Your task to perform on an android device: turn on the 12-hour format for clock Image 0: 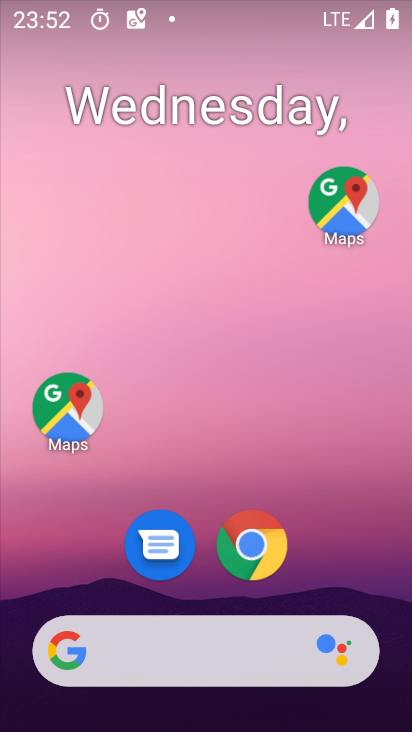
Step 0: drag from (326, 582) to (296, 59)
Your task to perform on an android device: turn on the 12-hour format for clock Image 1: 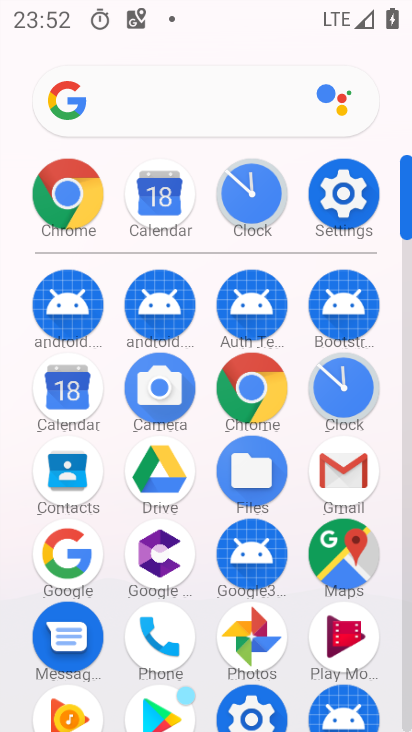
Step 1: click (319, 384)
Your task to perform on an android device: turn on the 12-hour format for clock Image 2: 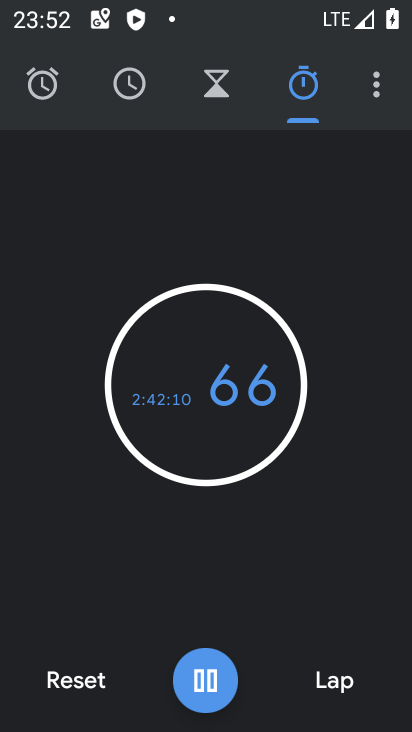
Step 2: click (390, 91)
Your task to perform on an android device: turn on the 12-hour format for clock Image 3: 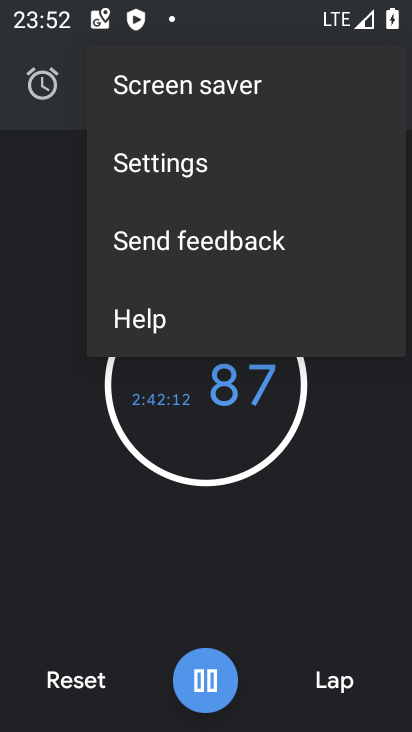
Step 3: click (187, 167)
Your task to perform on an android device: turn on the 12-hour format for clock Image 4: 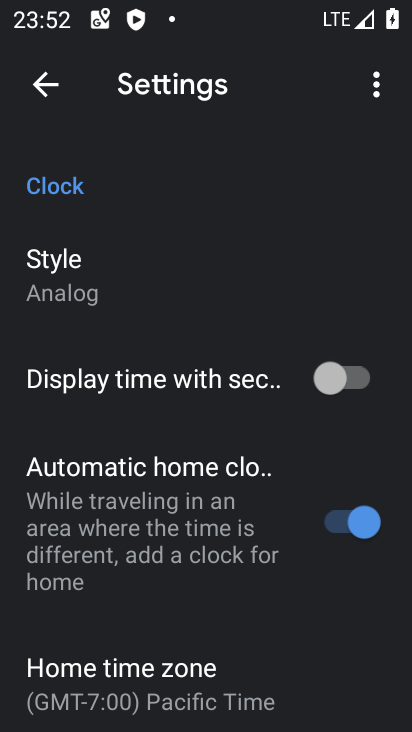
Step 4: drag from (306, 666) to (285, 310)
Your task to perform on an android device: turn on the 12-hour format for clock Image 5: 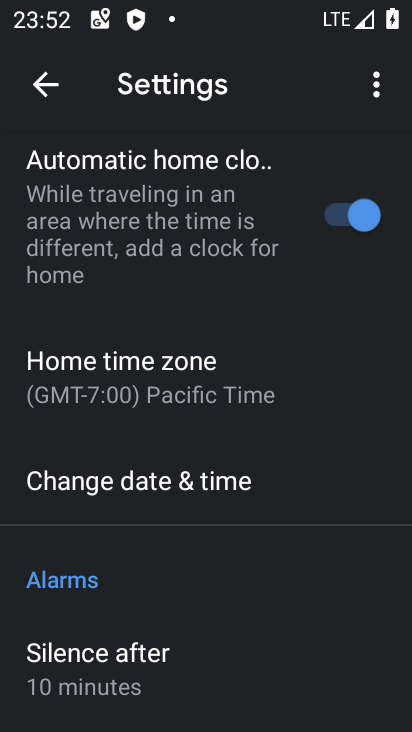
Step 5: drag from (332, 644) to (311, 435)
Your task to perform on an android device: turn on the 12-hour format for clock Image 6: 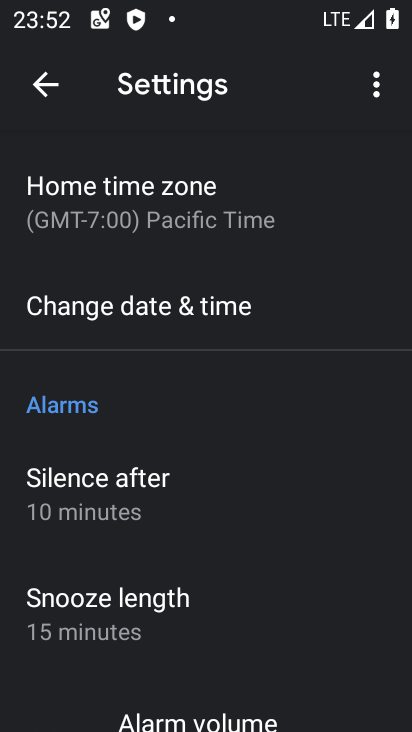
Step 6: click (230, 305)
Your task to perform on an android device: turn on the 12-hour format for clock Image 7: 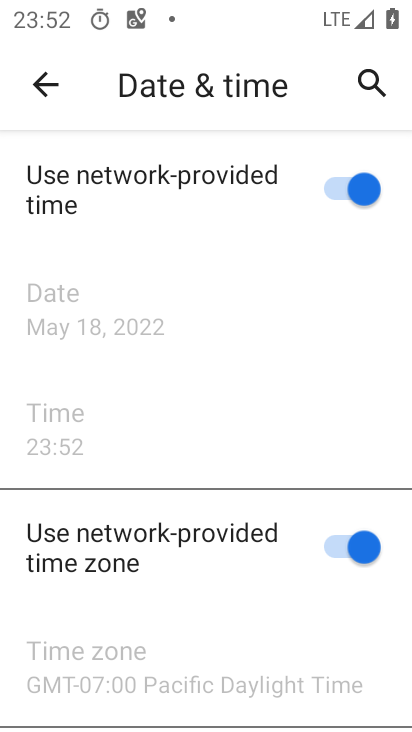
Step 7: drag from (273, 646) to (300, 266)
Your task to perform on an android device: turn on the 12-hour format for clock Image 8: 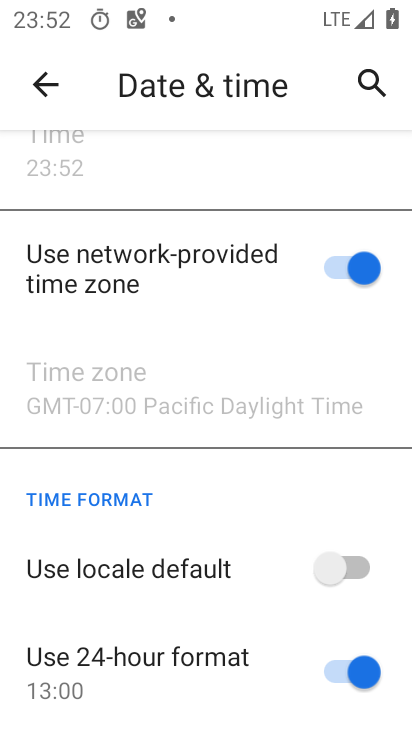
Step 8: drag from (159, 692) to (173, 512)
Your task to perform on an android device: turn on the 12-hour format for clock Image 9: 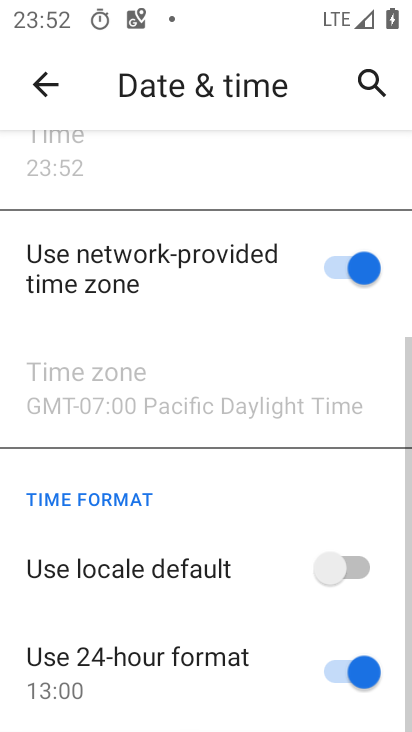
Step 9: click (283, 586)
Your task to perform on an android device: turn on the 12-hour format for clock Image 10: 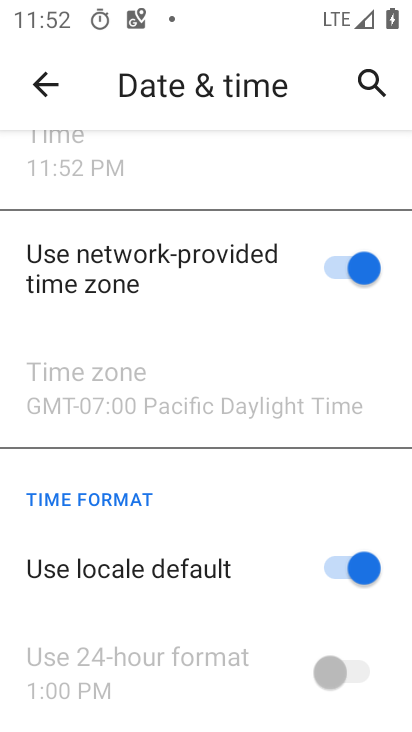
Step 10: task complete